Your task to perform on an android device: change the clock display to digital Image 0: 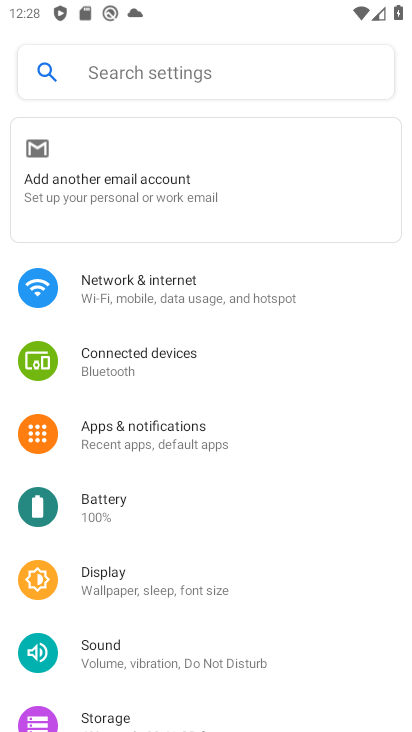
Step 0: drag from (302, 644) to (282, 442)
Your task to perform on an android device: change the clock display to digital Image 1: 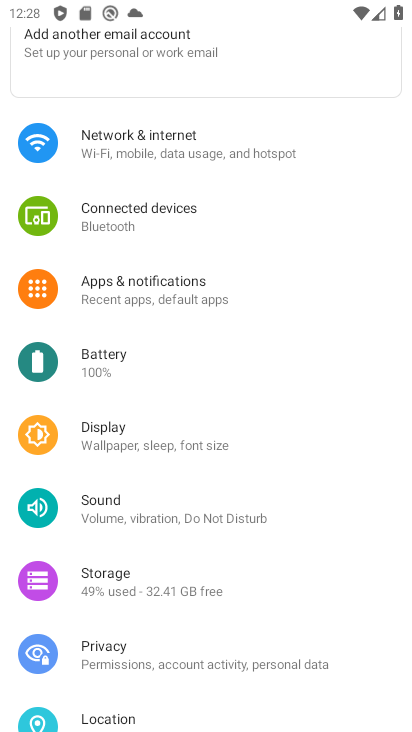
Step 1: press home button
Your task to perform on an android device: change the clock display to digital Image 2: 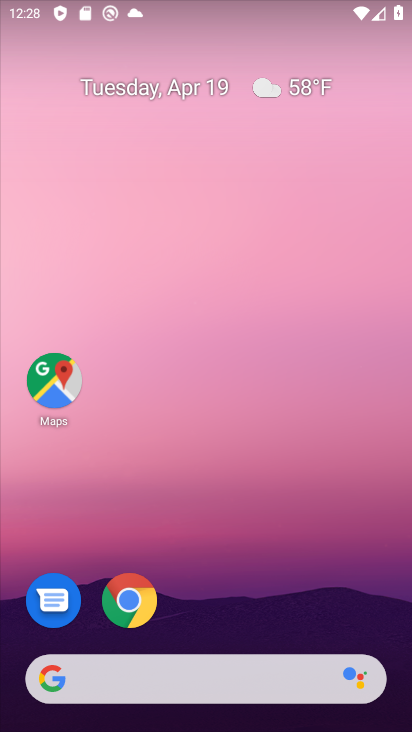
Step 2: drag from (238, 602) to (181, 201)
Your task to perform on an android device: change the clock display to digital Image 3: 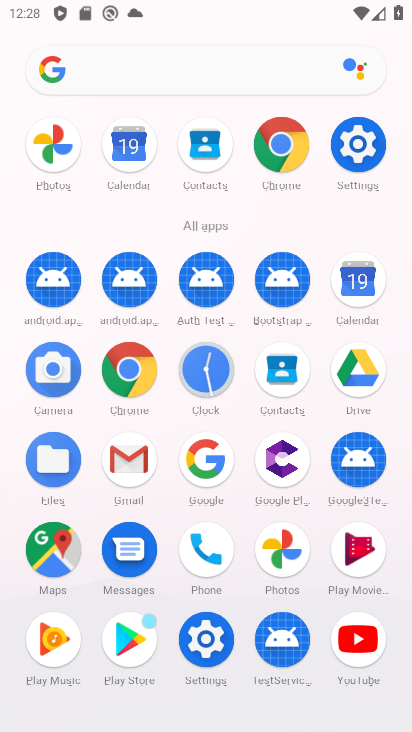
Step 3: click (222, 379)
Your task to perform on an android device: change the clock display to digital Image 4: 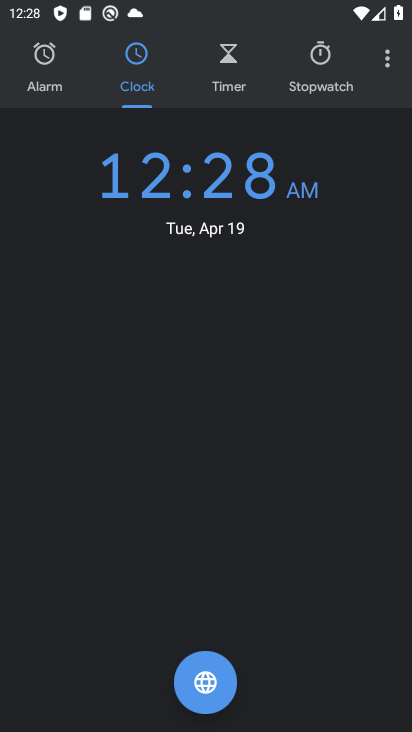
Step 4: click (398, 66)
Your task to perform on an android device: change the clock display to digital Image 5: 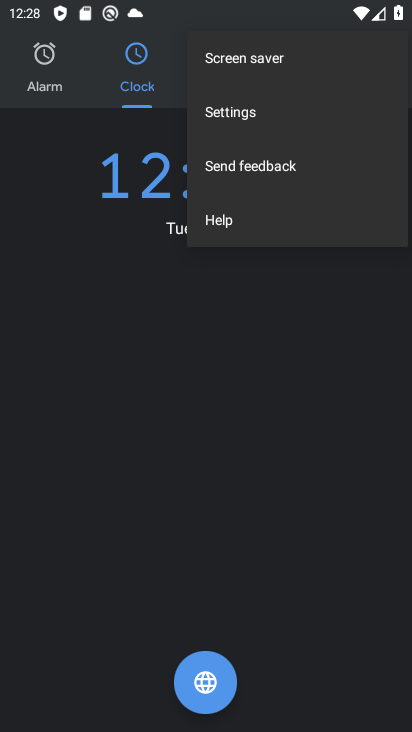
Step 5: click (363, 111)
Your task to perform on an android device: change the clock display to digital Image 6: 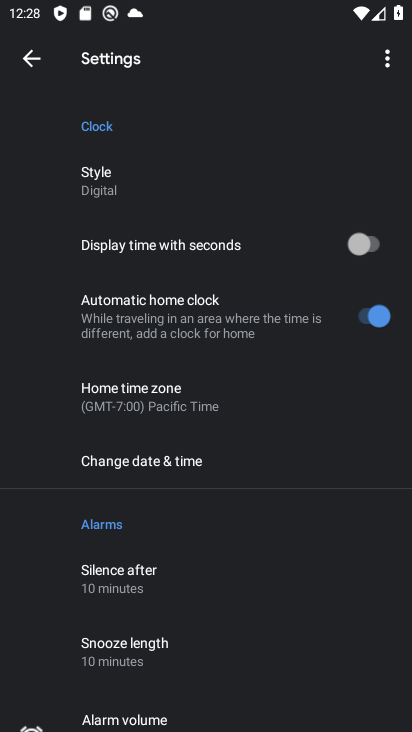
Step 6: click (195, 170)
Your task to perform on an android device: change the clock display to digital Image 7: 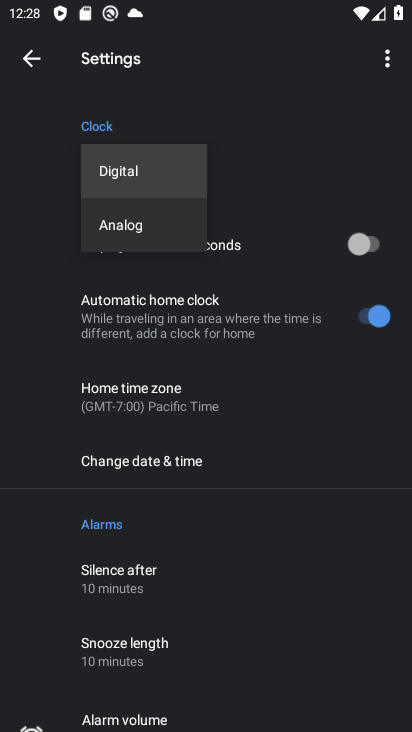
Step 7: task complete